Your task to perform on an android device: What is the news today? Image 0: 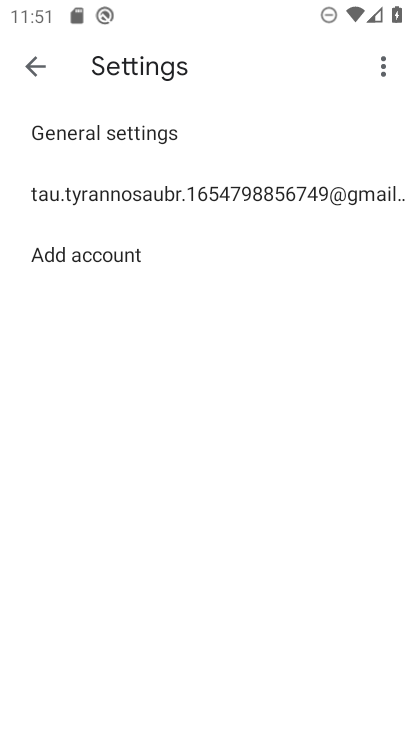
Step 0: press home button
Your task to perform on an android device: What is the news today? Image 1: 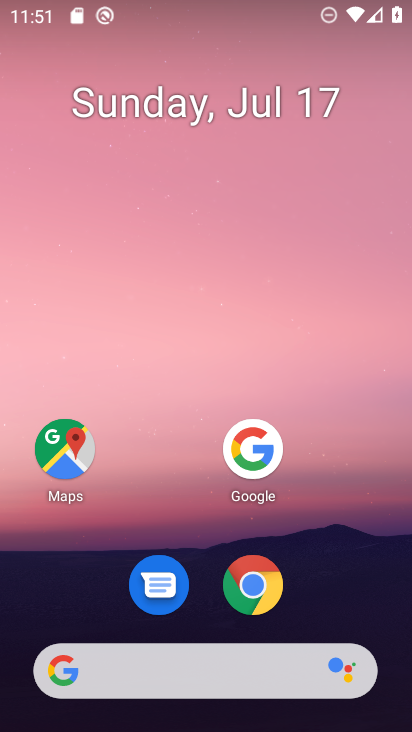
Step 1: click (176, 675)
Your task to perform on an android device: What is the news today? Image 2: 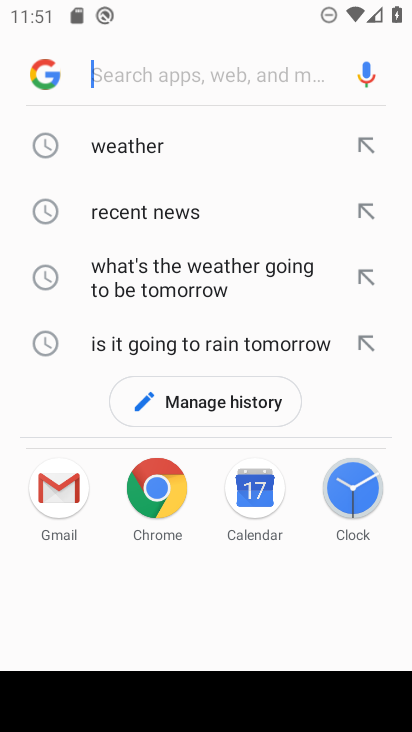
Step 2: click (152, 218)
Your task to perform on an android device: What is the news today? Image 3: 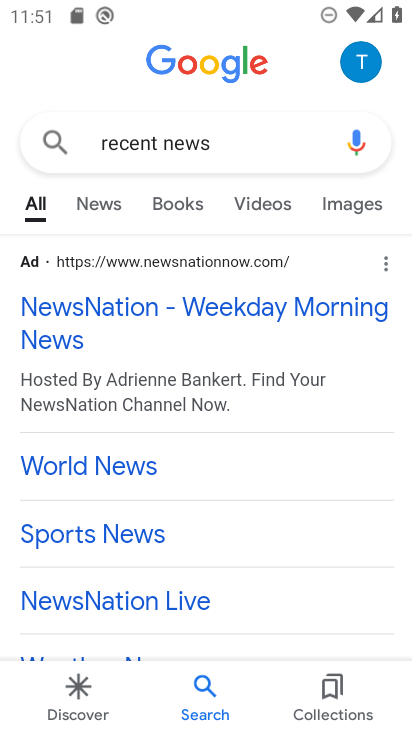
Step 3: click (80, 199)
Your task to perform on an android device: What is the news today? Image 4: 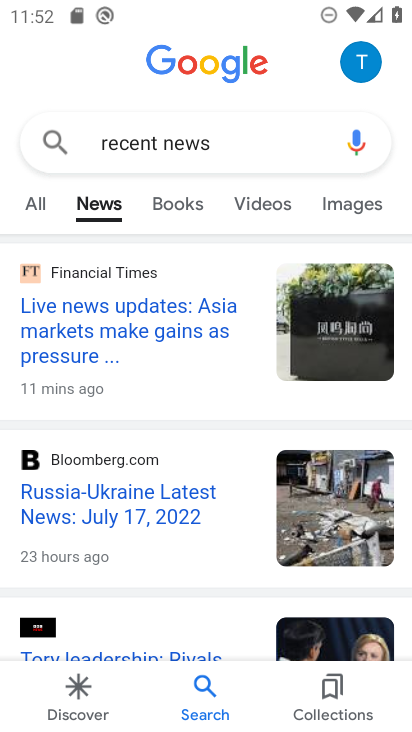
Step 4: task complete